Your task to perform on an android device: Open wifi settings Image 0: 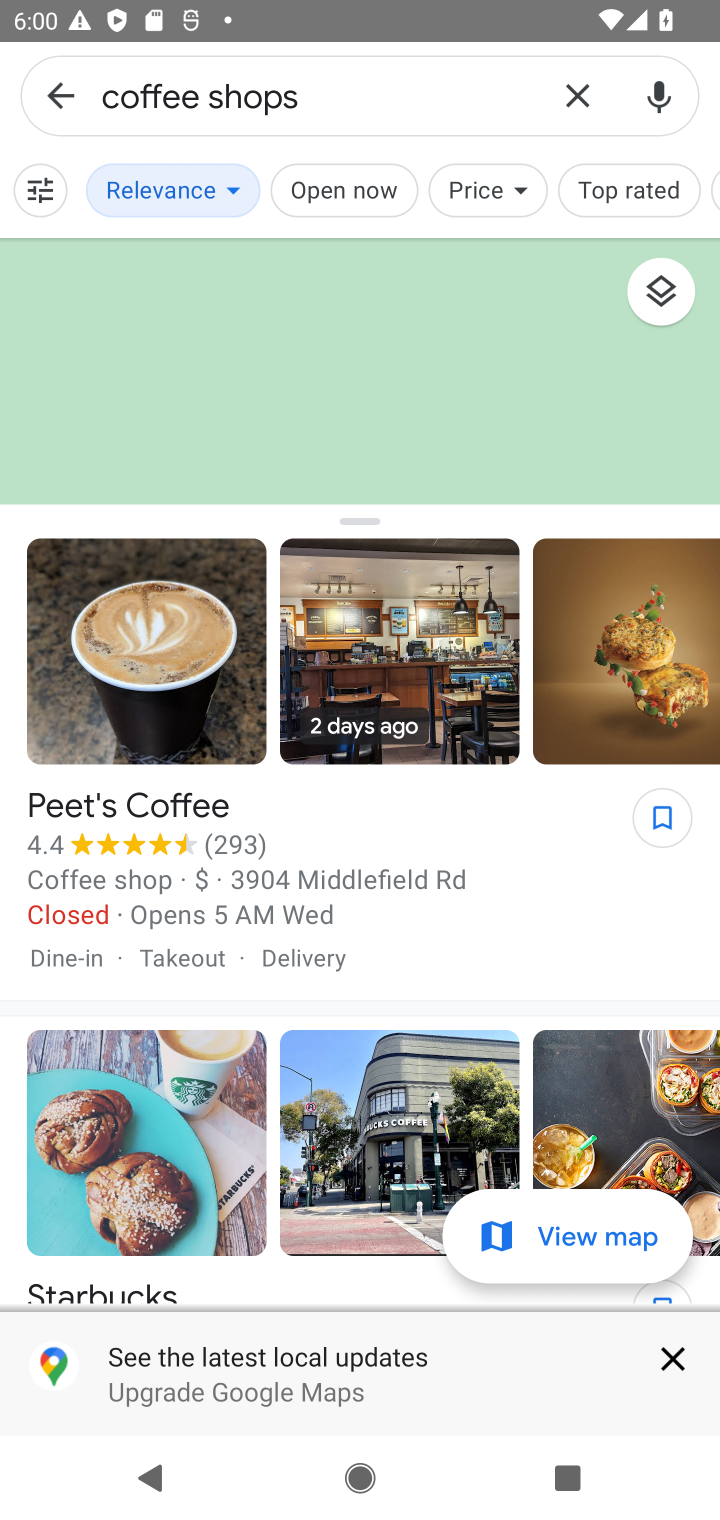
Step 0: drag from (152, 51) to (19, 1077)
Your task to perform on an android device: Open wifi settings Image 1: 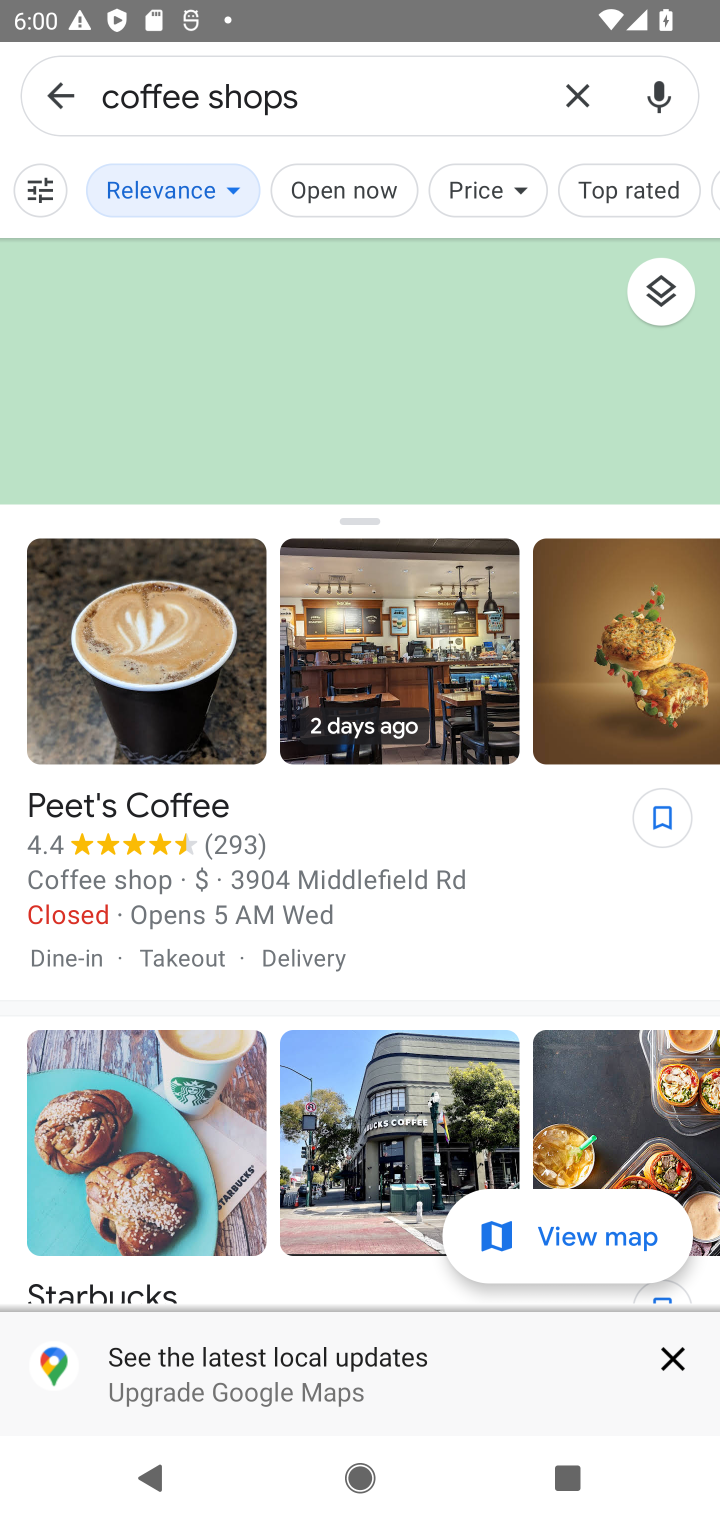
Step 1: drag from (118, 87) to (87, 1049)
Your task to perform on an android device: Open wifi settings Image 2: 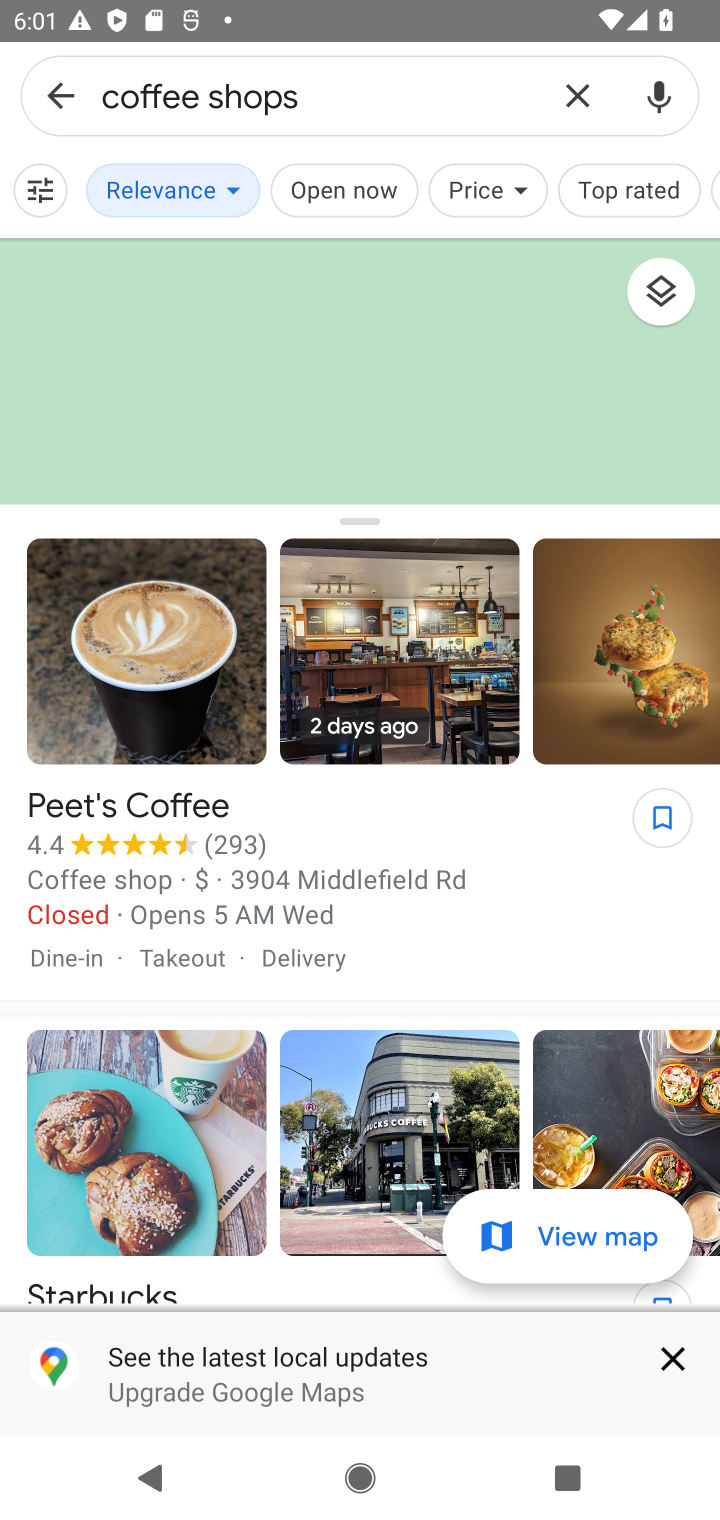
Step 2: drag from (164, 106) to (152, 1123)
Your task to perform on an android device: Open wifi settings Image 3: 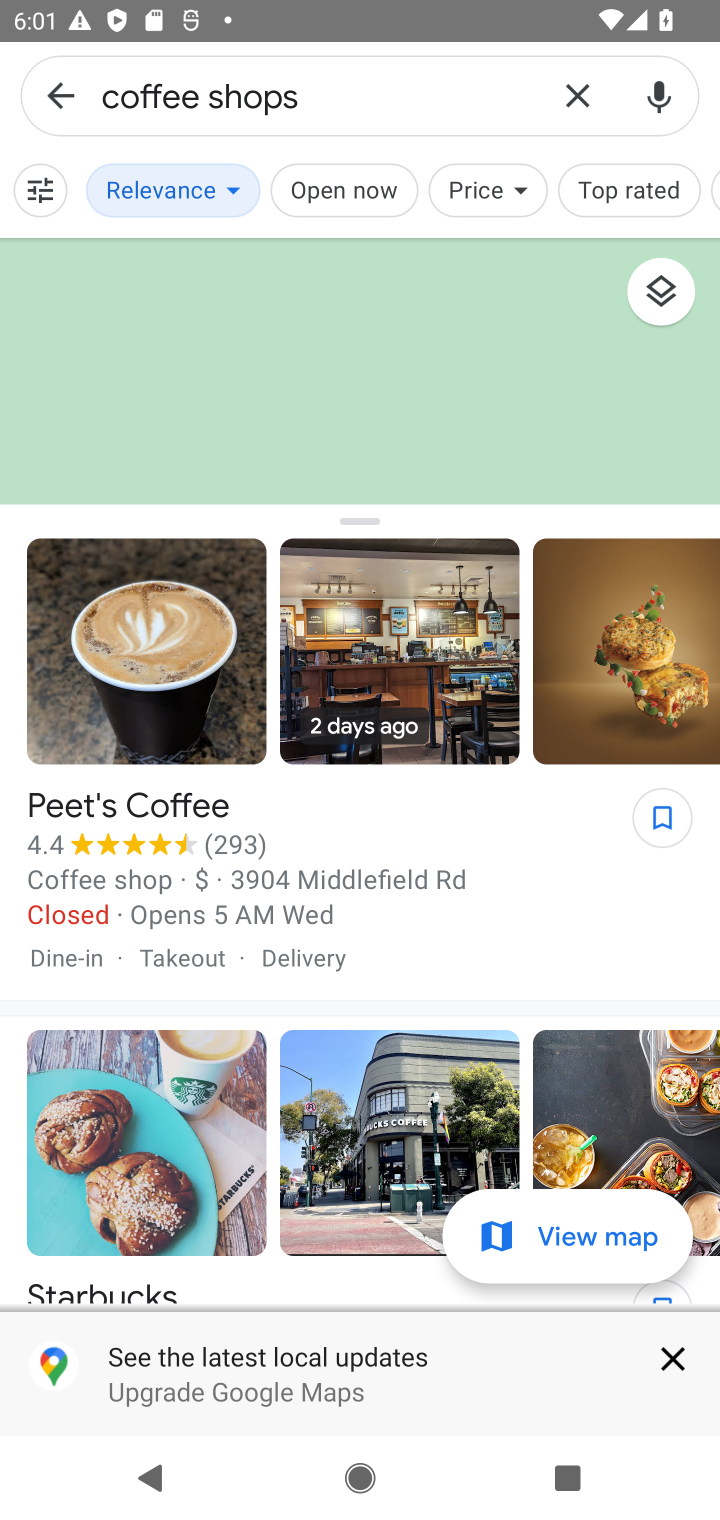
Step 3: drag from (249, 241) to (236, 1178)
Your task to perform on an android device: Open wifi settings Image 4: 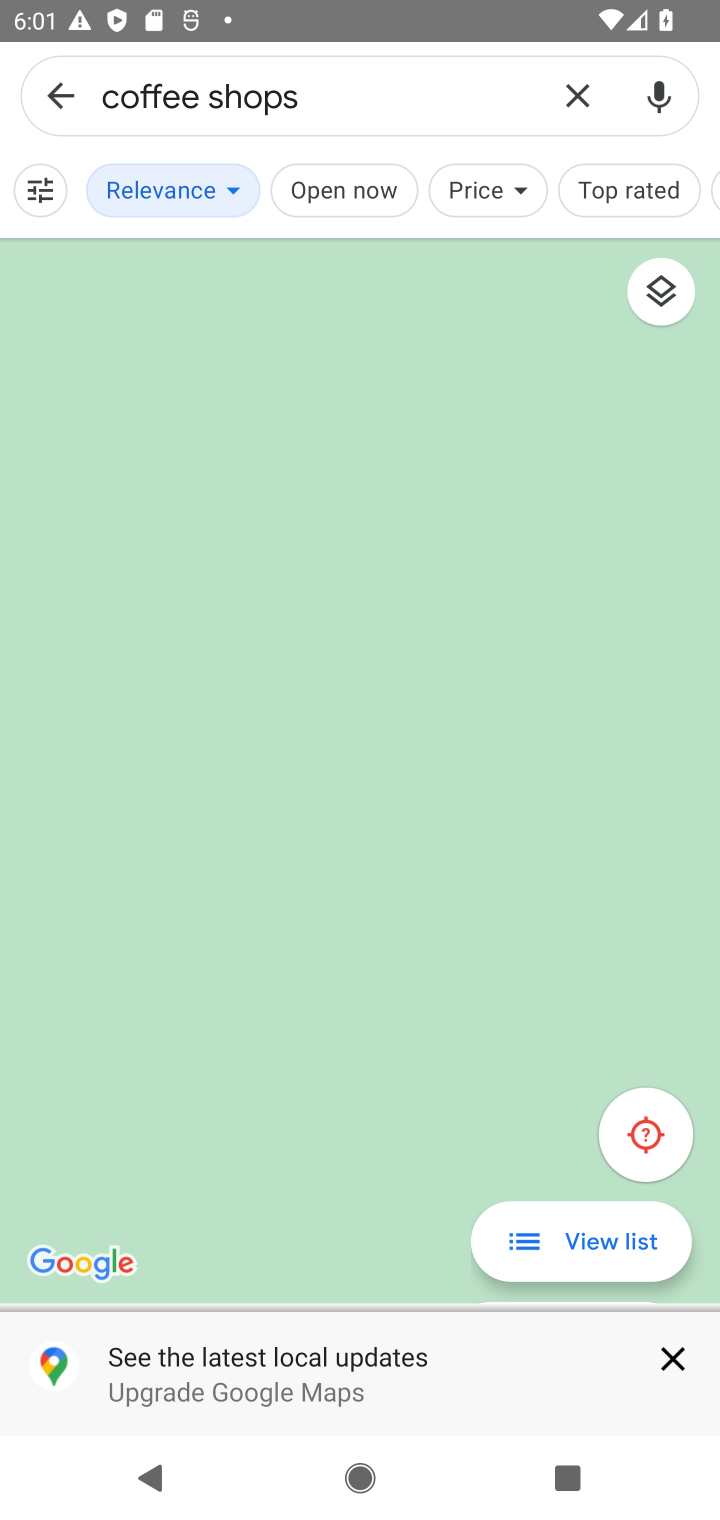
Step 4: press home button
Your task to perform on an android device: Open wifi settings Image 5: 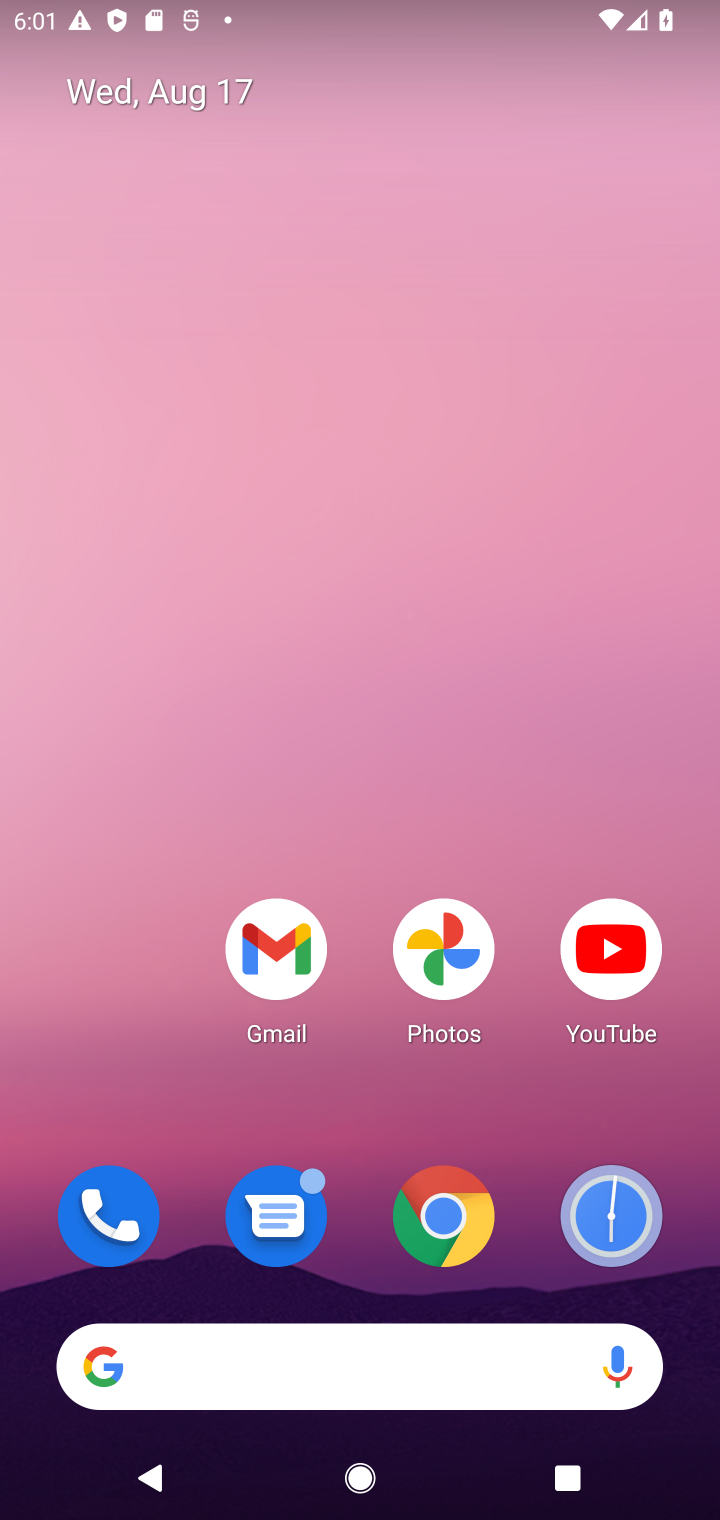
Step 5: drag from (305, 100) to (292, 1171)
Your task to perform on an android device: Open wifi settings Image 6: 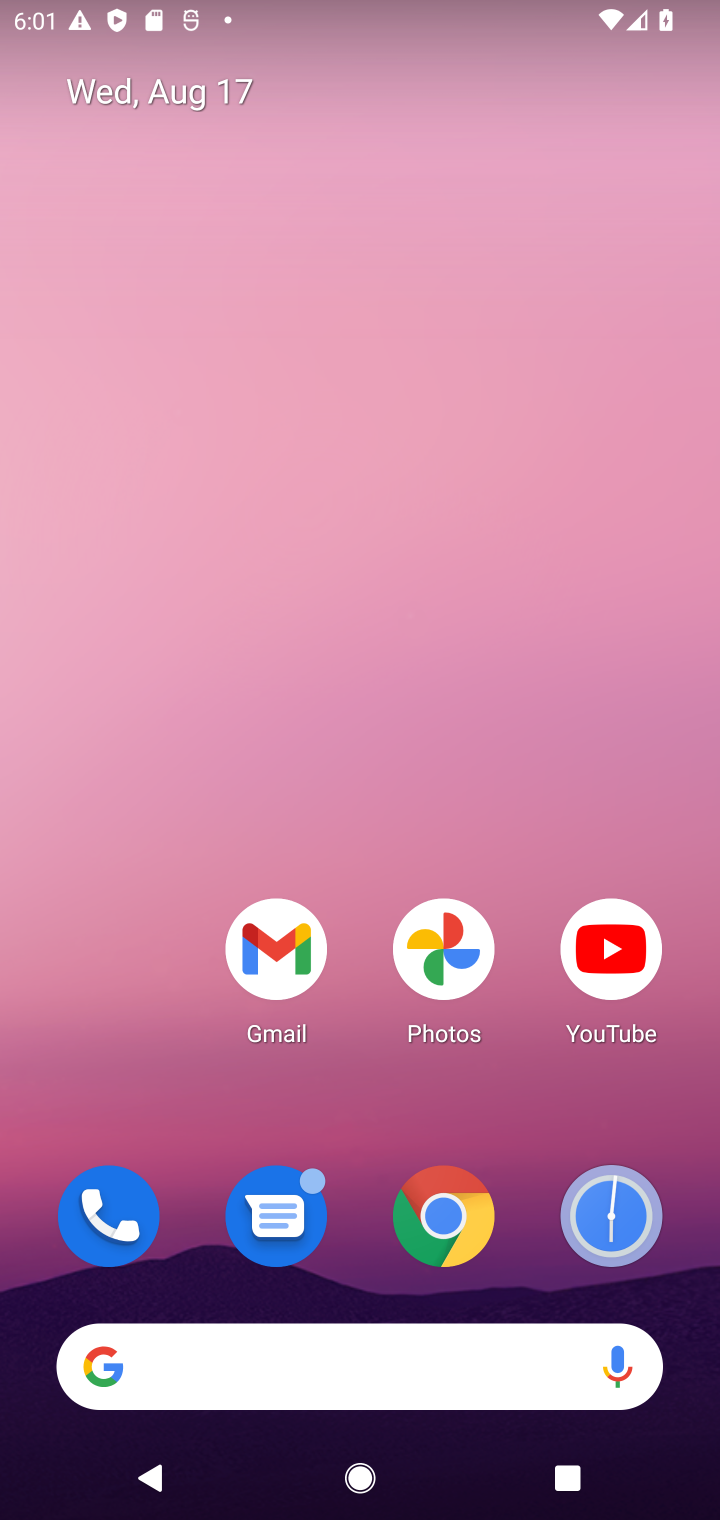
Step 6: drag from (246, 80) to (250, 1042)
Your task to perform on an android device: Open wifi settings Image 7: 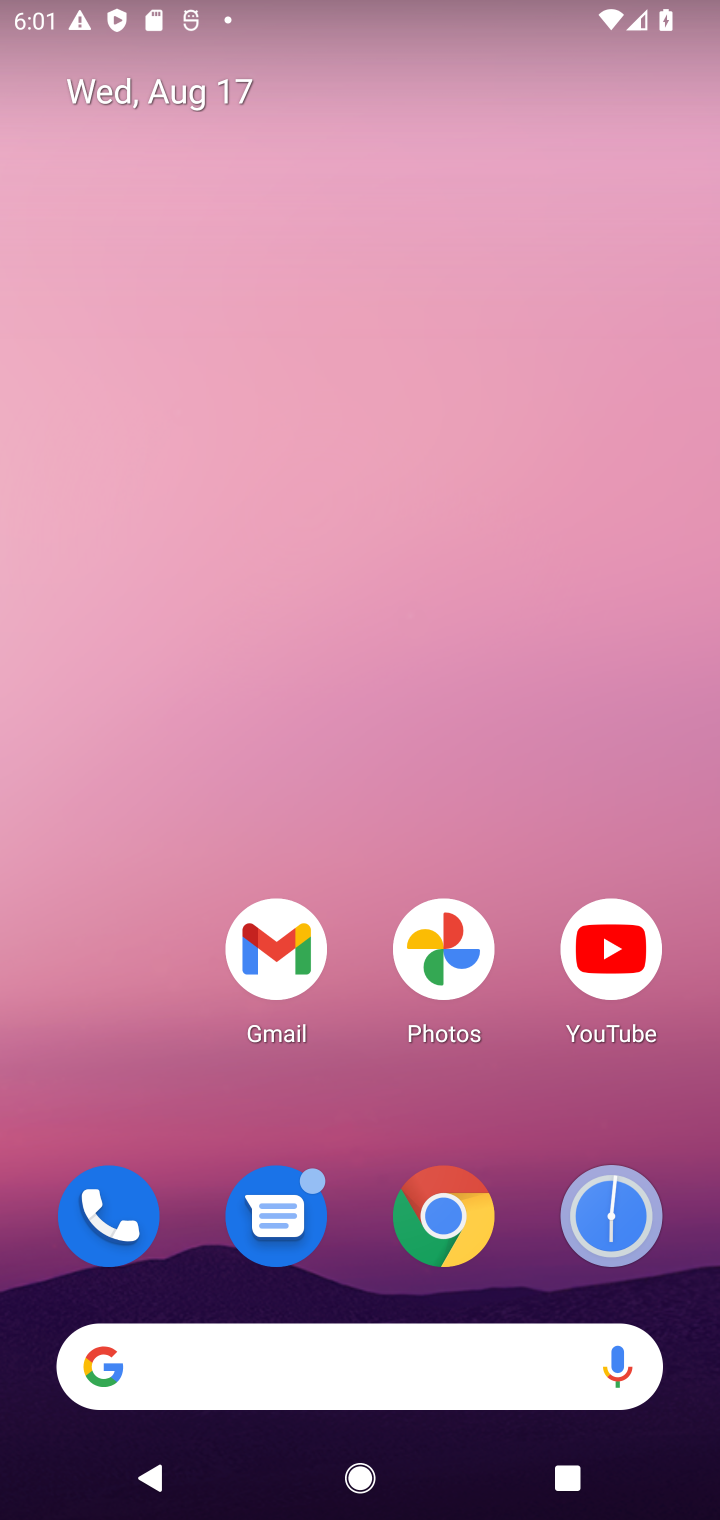
Step 7: drag from (279, 16) to (211, 1068)
Your task to perform on an android device: Open wifi settings Image 8: 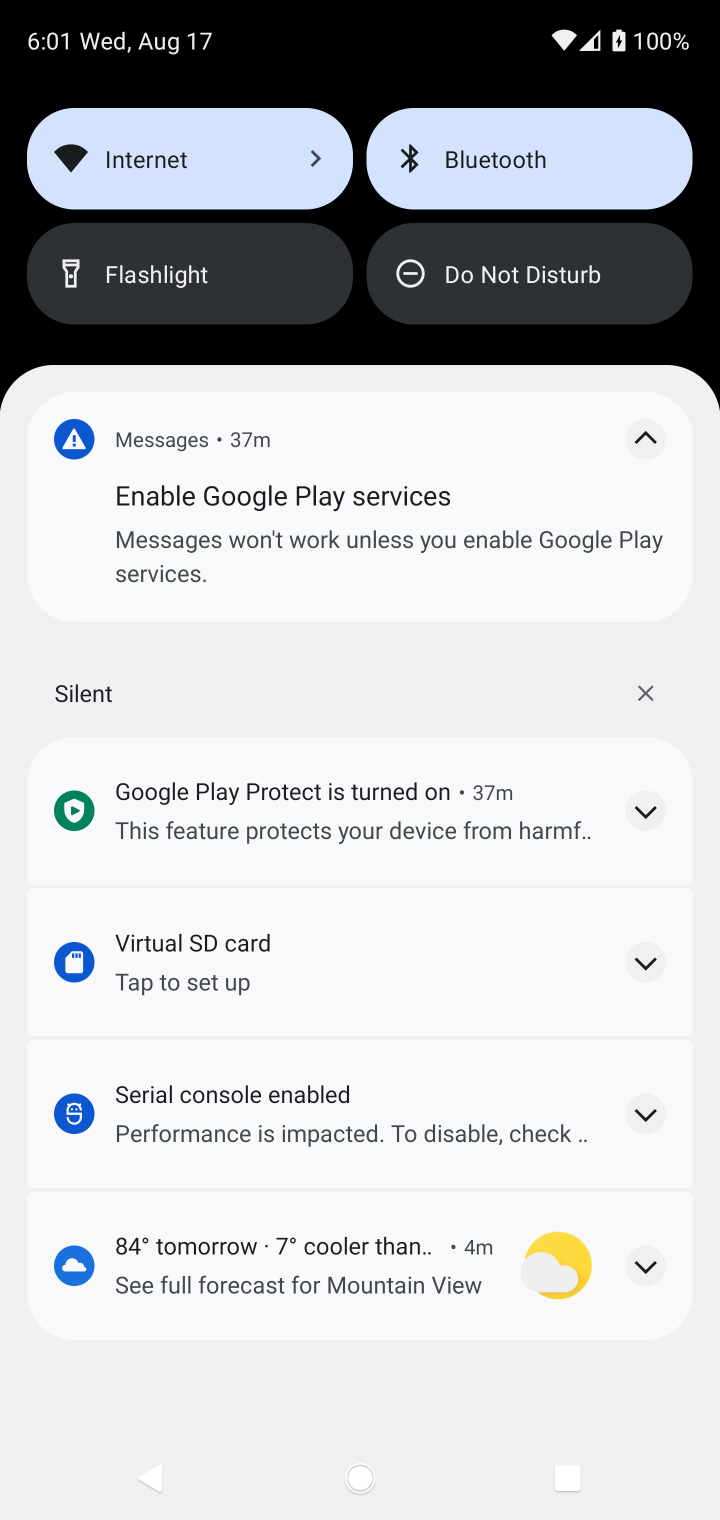
Step 8: click (247, 171)
Your task to perform on an android device: Open wifi settings Image 9: 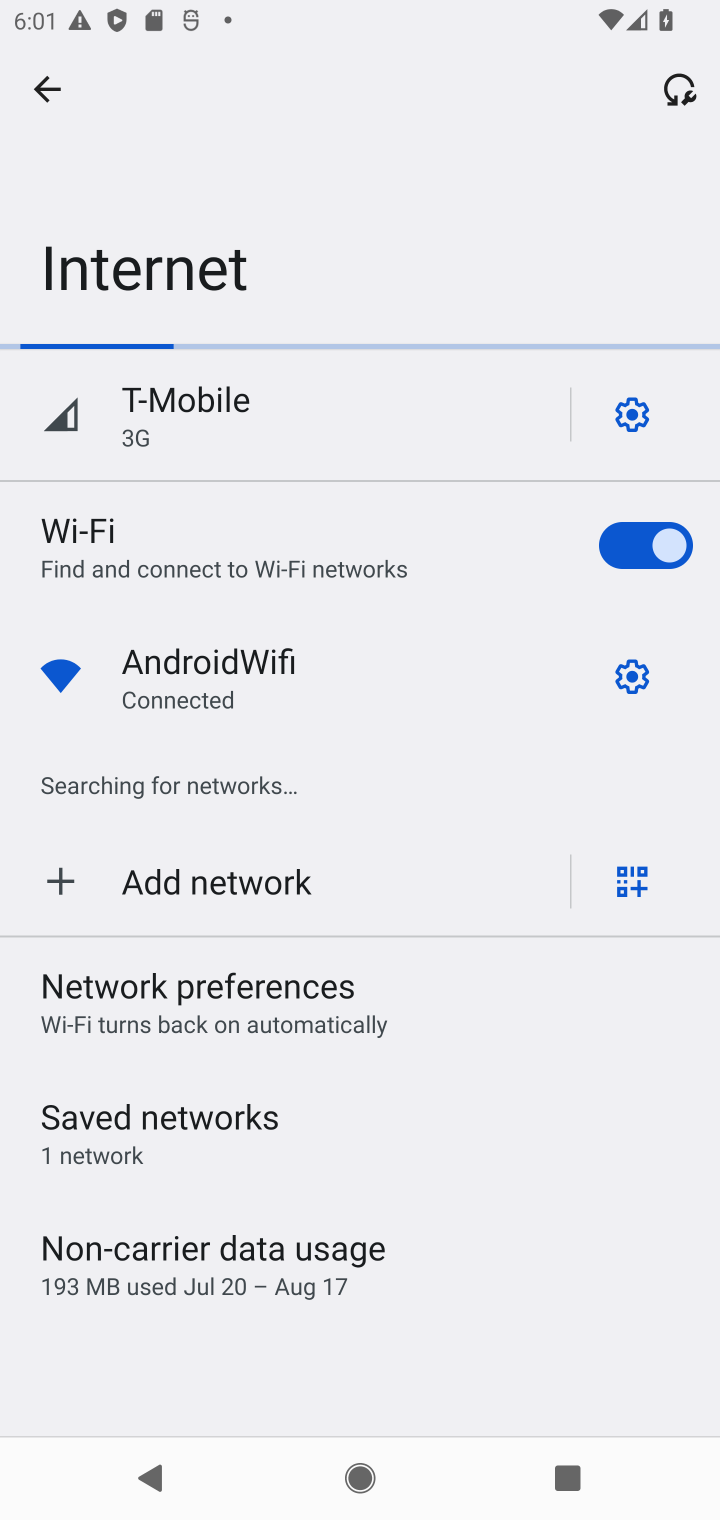
Step 9: task complete